Your task to perform on an android device: Clear all items from cart on costco.com. Image 0: 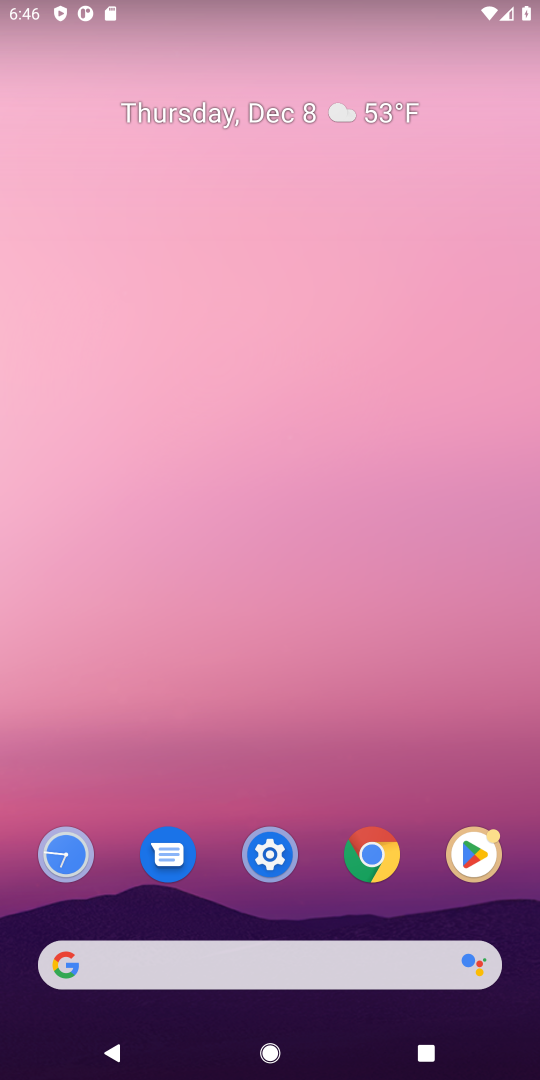
Step 0: press home button
Your task to perform on an android device: Clear all items from cart on costco.com. Image 1: 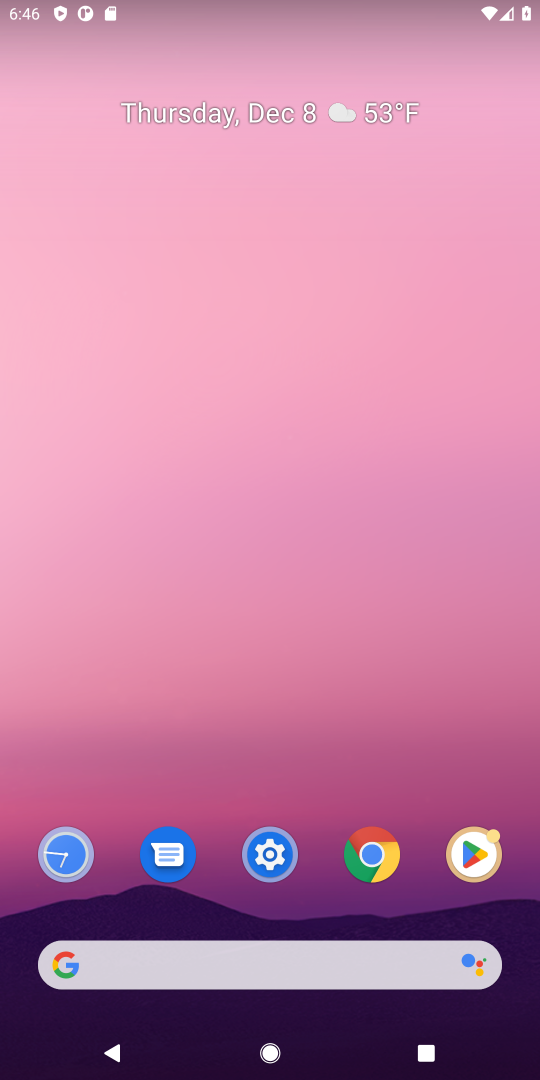
Step 1: click (98, 961)
Your task to perform on an android device: Clear all items from cart on costco.com. Image 2: 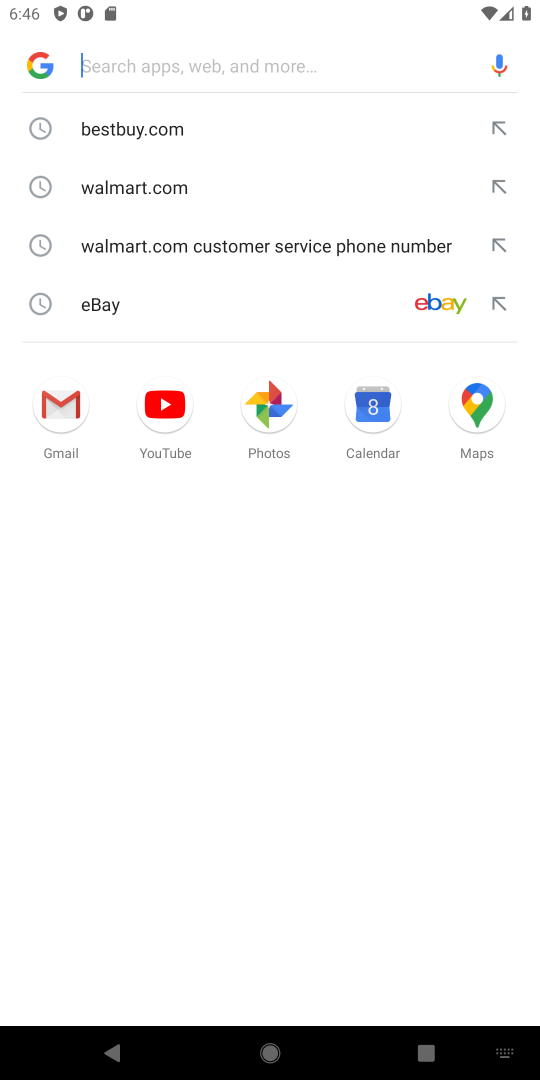
Step 2: type "costco.com"
Your task to perform on an android device: Clear all items from cart on costco.com. Image 3: 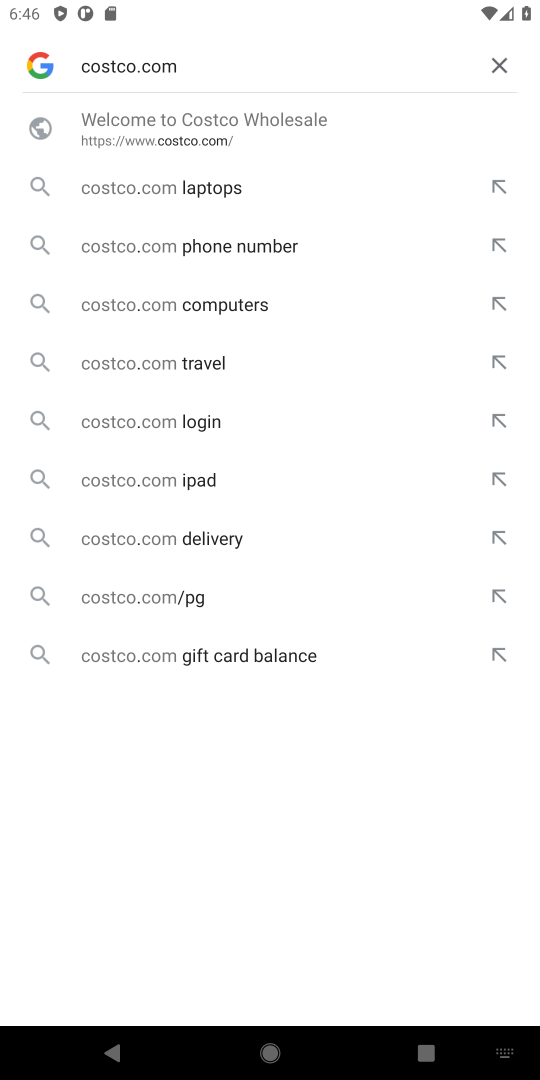
Step 3: press enter
Your task to perform on an android device: Clear all items from cart on costco.com. Image 4: 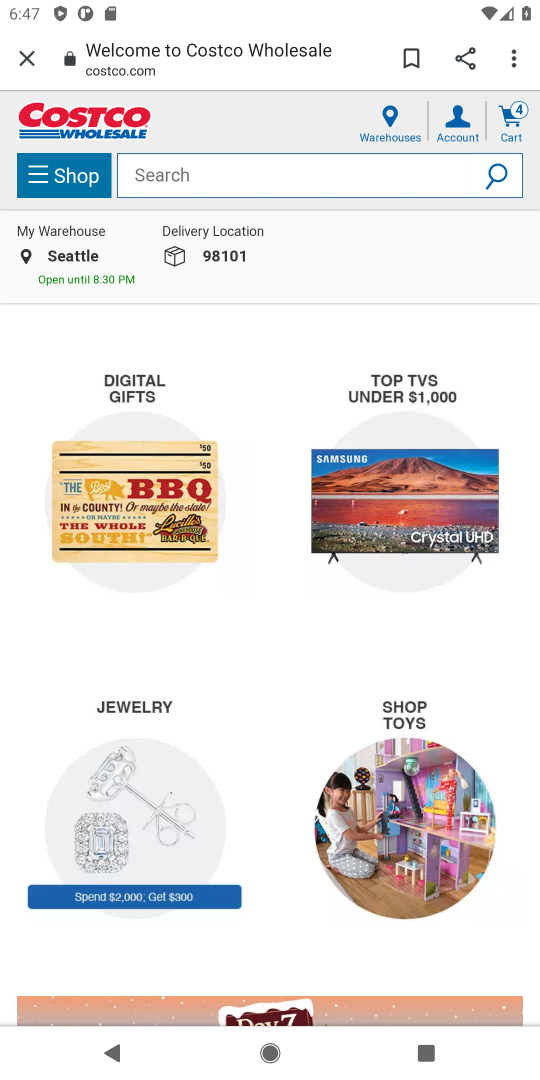
Step 4: click (502, 121)
Your task to perform on an android device: Clear all items from cart on costco.com. Image 5: 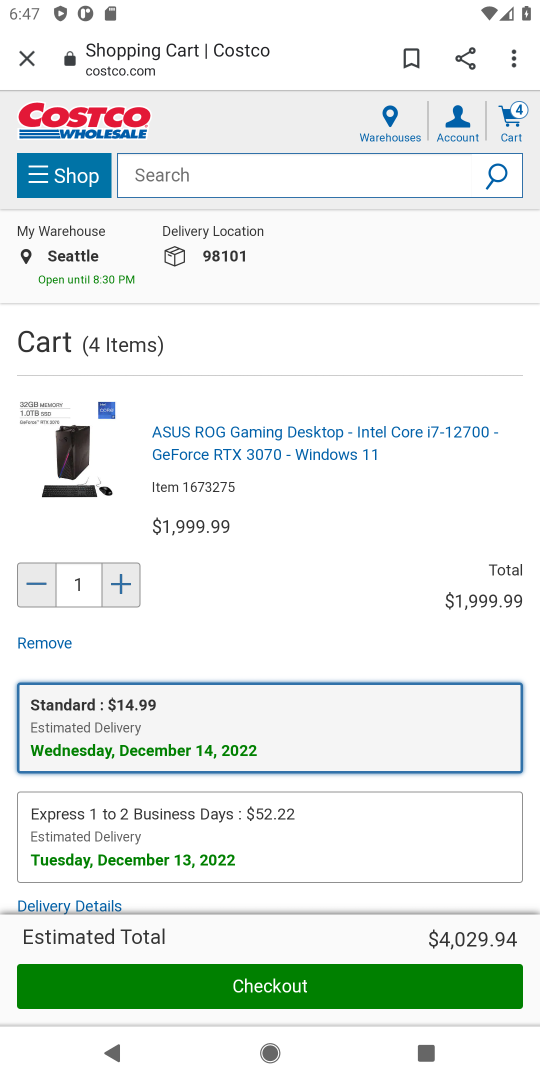
Step 5: click (30, 639)
Your task to perform on an android device: Clear all items from cart on costco.com. Image 6: 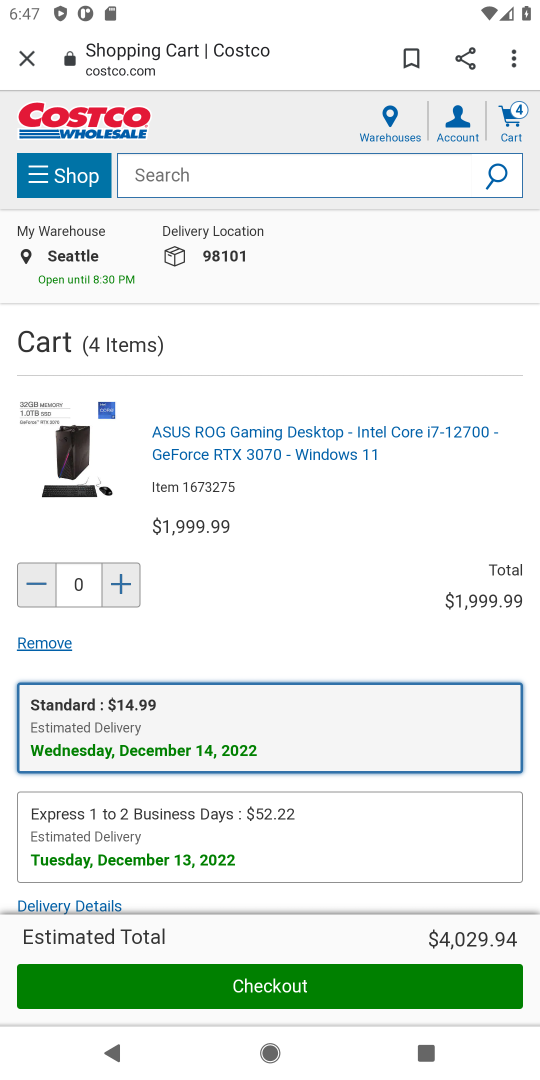
Step 6: drag from (273, 567) to (273, 426)
Your task to perform on an android device: Clear all items from cart on costco.com. Image 7: 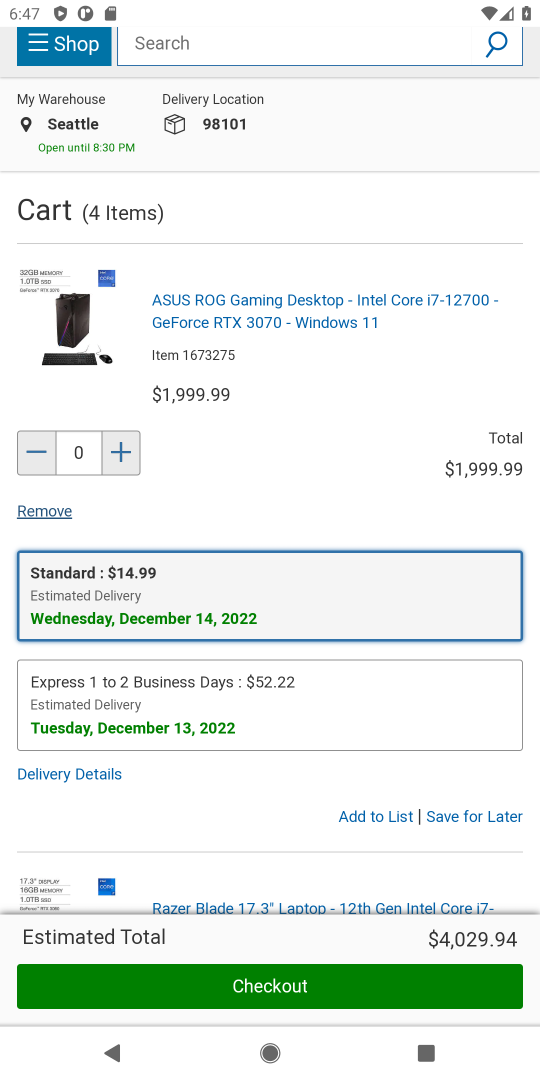
Step 7: drag from (232, 800) to (274, 459)
Your task to perform on an android device: Clear all items from cart on costco.com. Image 8: 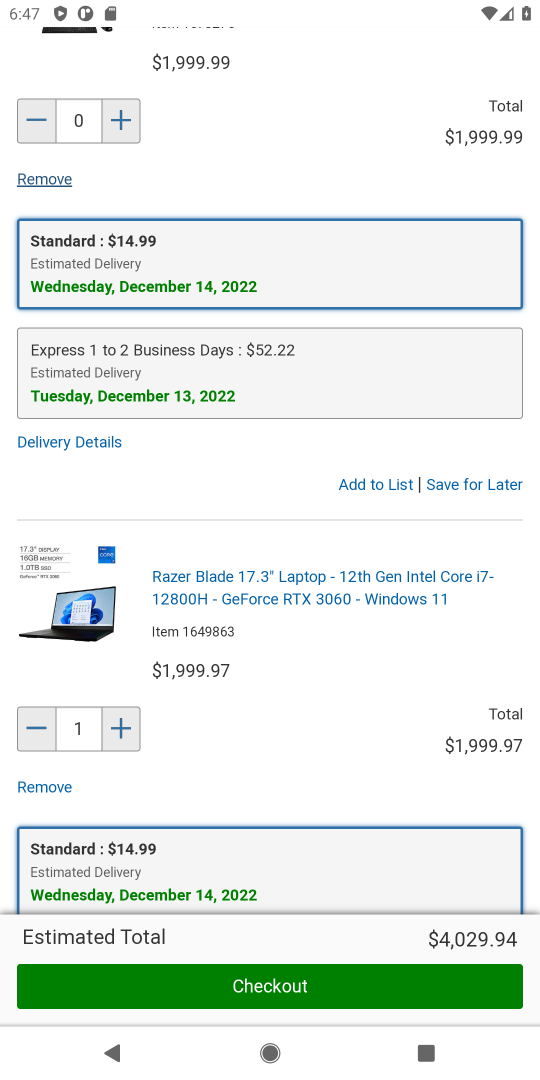
Step 8: click (35, 790)
Your task to perform on an android device: Clear all items from cart on costco.com. Image 9: 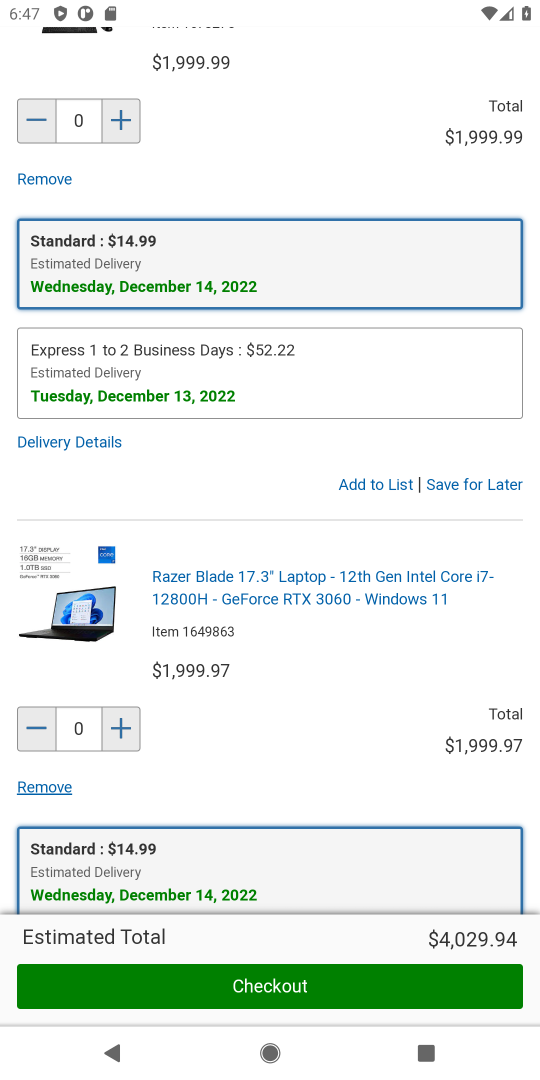
Step 9: task complete